Your task to perform on an android device: clear history in the chrome app Image 0: 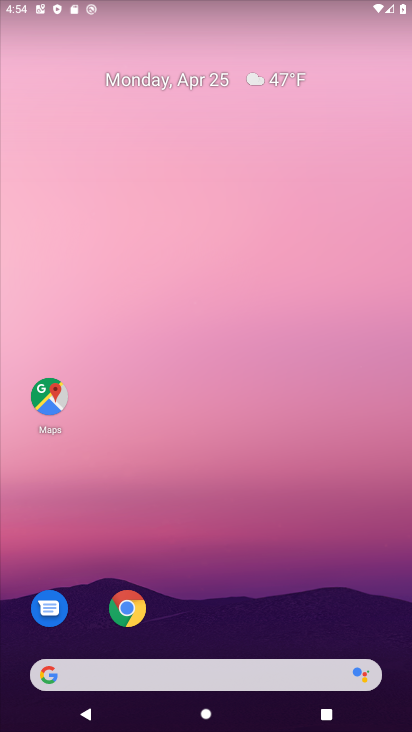
Step 0: click (133, 608)
Your task to perform on an android device: clear history in the chrome app Image 1: 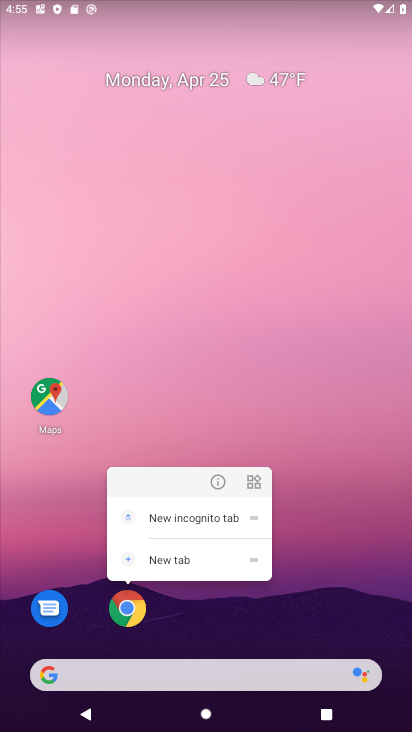
Step 1: click (119, 605)
Your task to perform on an android device: clear history in the chrome app Image 2: 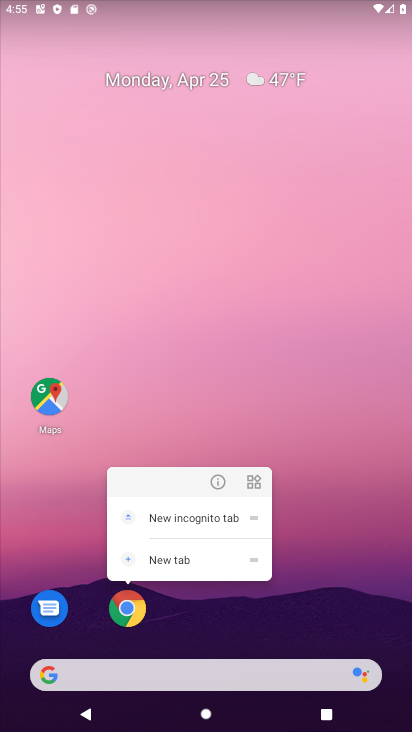
Step 2: click (124, 605)
Your task to perform on an android device: clear history in the chrome app Image 3: 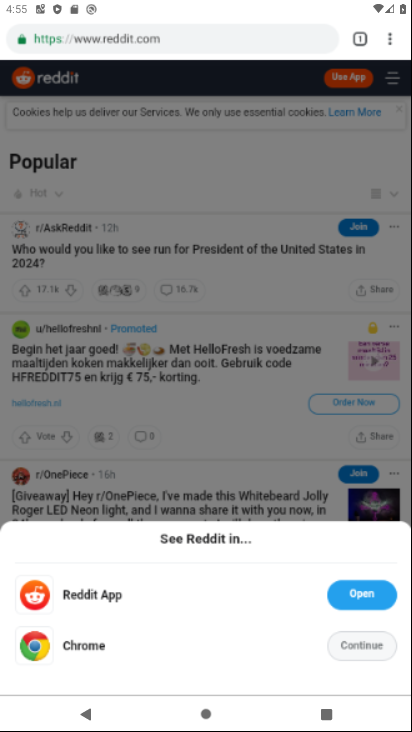
Step 3: click (130, 618)
Your task to perform on an android device: clear history in the chrome app Image 4: 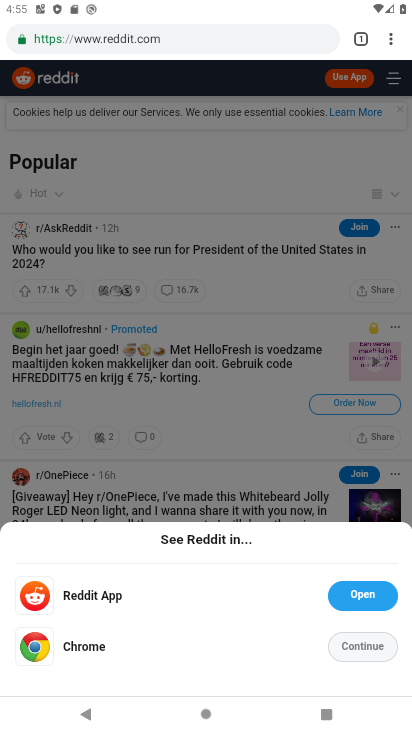
Step 4: click (187, 400)
Your task to perform on an android device: clear history in the chrome app Image 5: 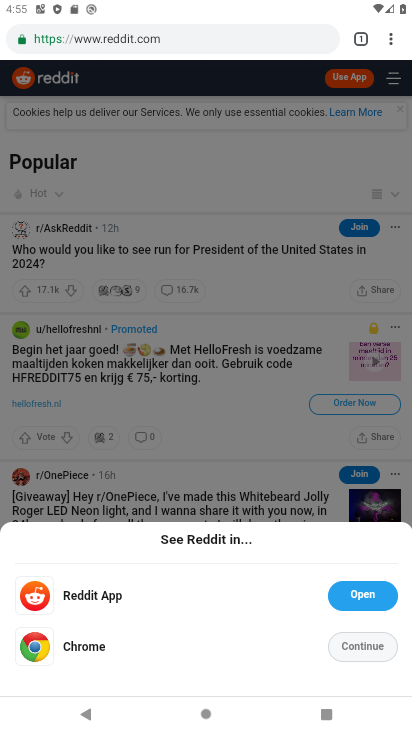
Step 5: click (365, 648)
Your task to perform on an android device: clear history in the chrome app Image 6: 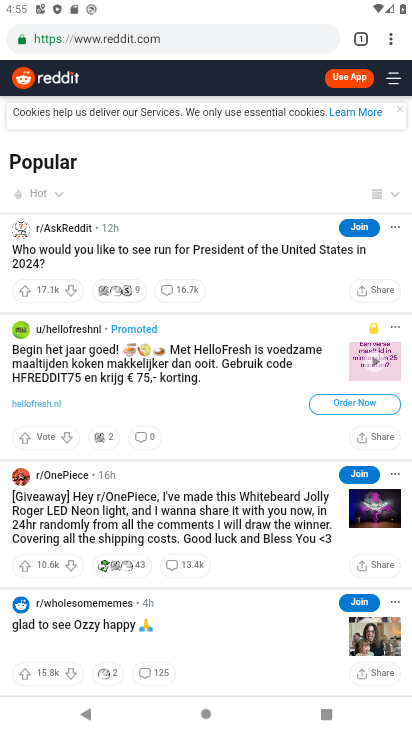
Step 6: click (366, 649)
Your task to perform on an android device: clear history in the chrome app Image 7: 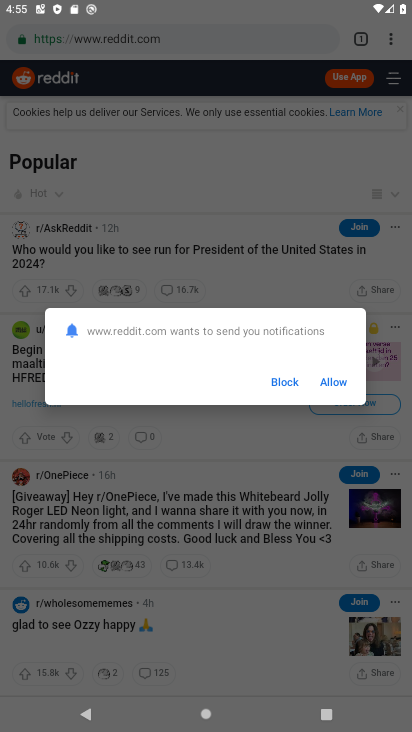
Step 7: click (290, 381)
Your task to perform on an android device: clear history in the chrome app Image 8: 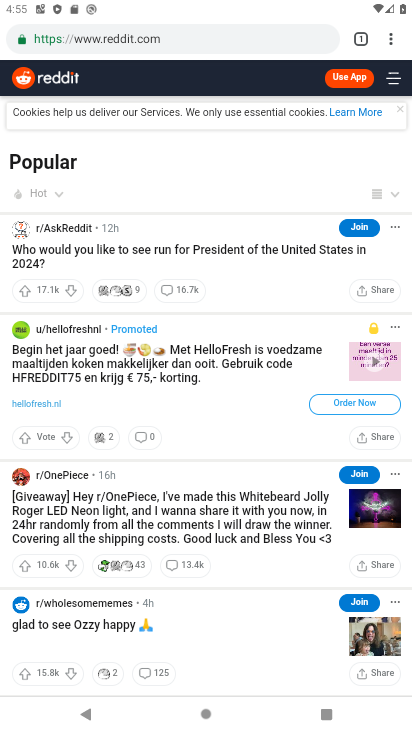
Step 8: click (389, 33)
Your task to perform on an android device: clear history in the chrome app Image 9: 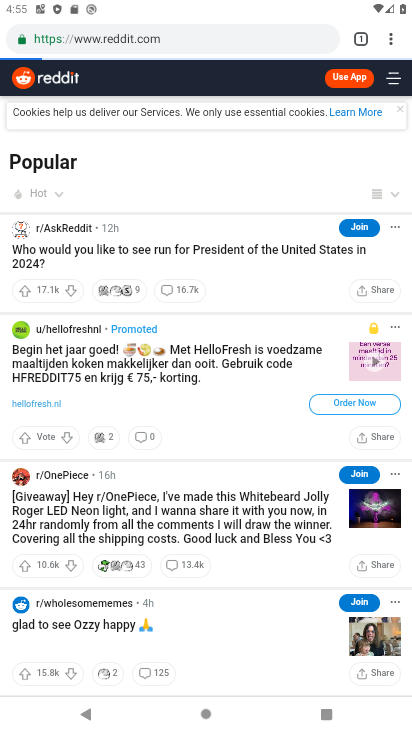
Step 9: click (389, 33)
Your task to perform on an android device: clear history in the chrome app Image 10: 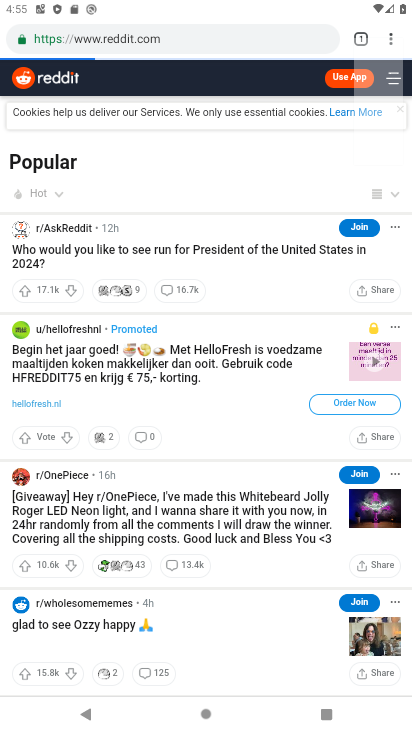
Step 10: click (389, 33)
Your task to perform on an android device: clear history in the chrome app Image 11: 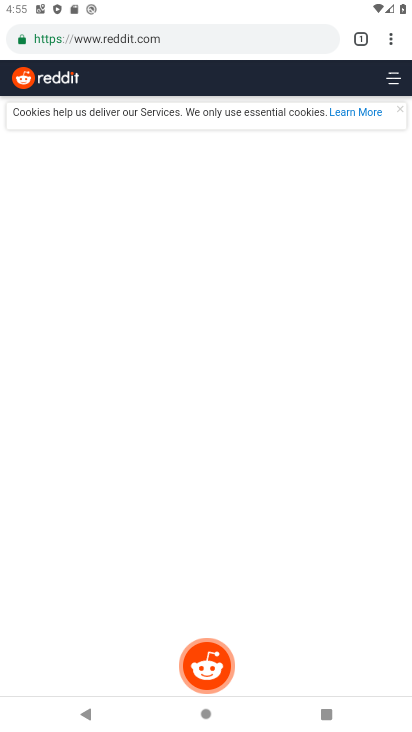
Step 11: click (397, 38)
Your task to perform on an android device: clear history in the chrome app Image 12: 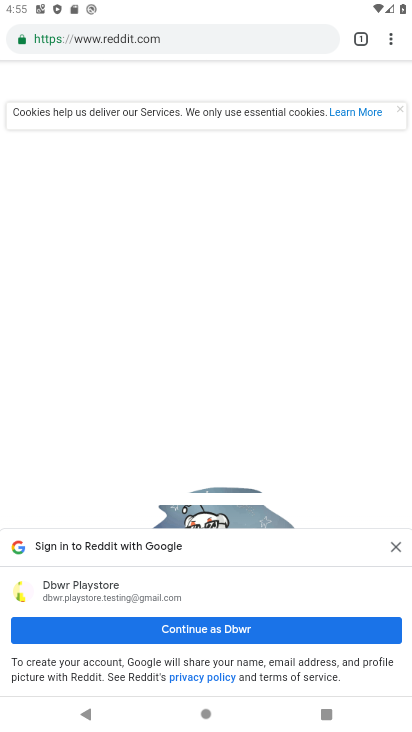
Step 12: click (386, 40)
Your task to perform on an android device: clear history in the chrome app Image 13: 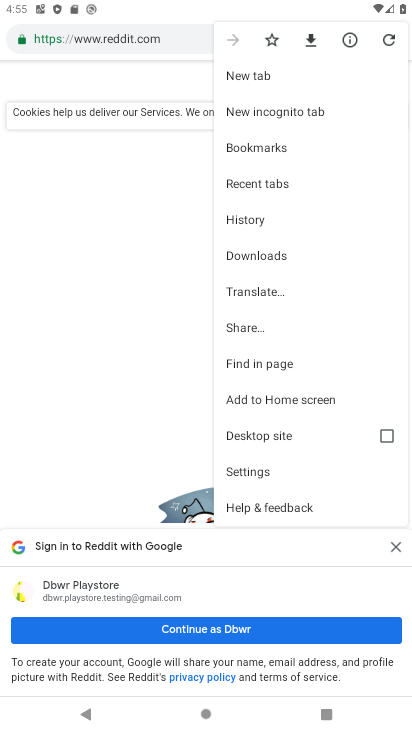
Step 13: click (231, 212)
Your task to perform on an android device: clear history in the chrome app Image 14: 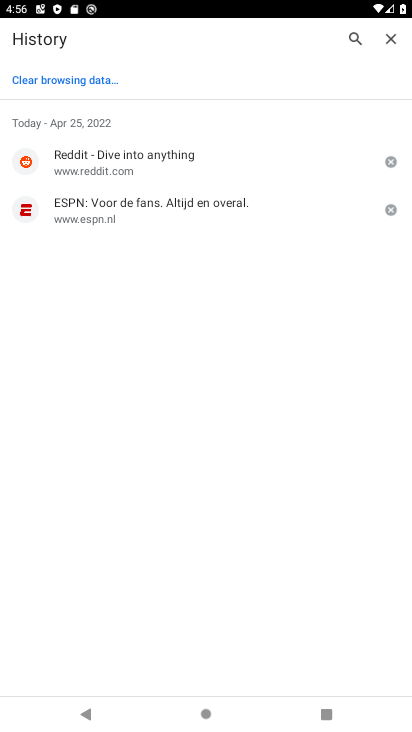
Step 14: click (42, 84)
Your task to perform on an android device: clear history in the chrome app Image 15: 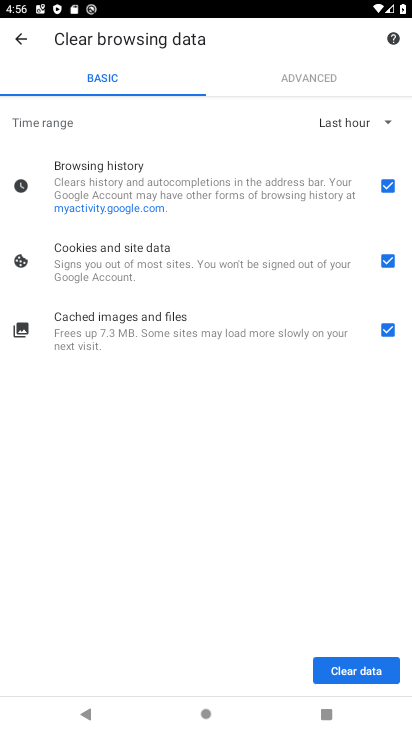
Step 15: click (332, 667)
Your task to perform on an android device: clear history in the chrome app Image 16: 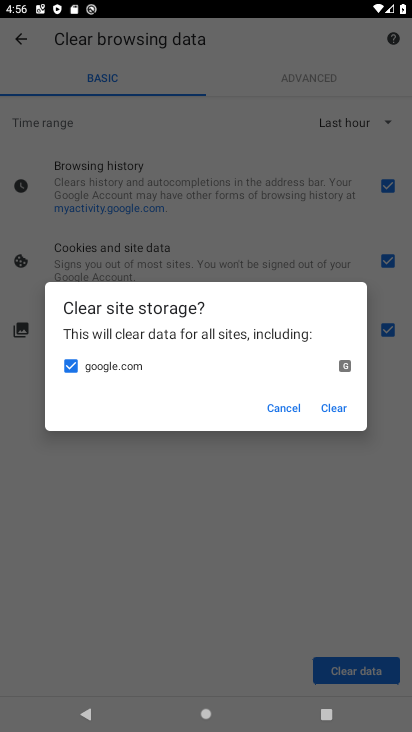
Step 16: click (328, 402)
Your task to perform on an android device: clear history in the chrome app Image 17: 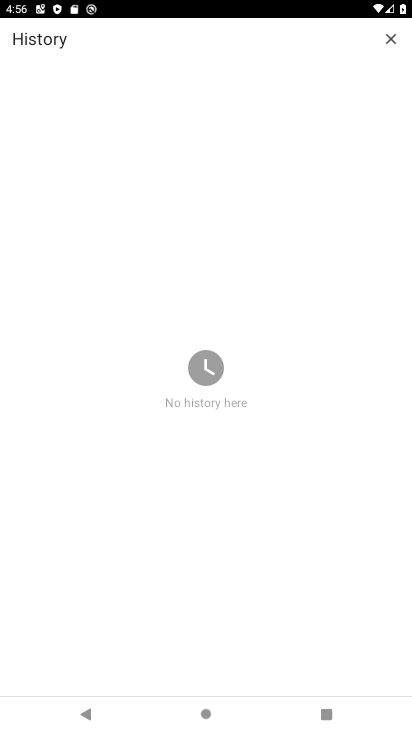
Step 17: task complete